Your task to perform on an android device: toggle javascript in the chrome app Image 0: 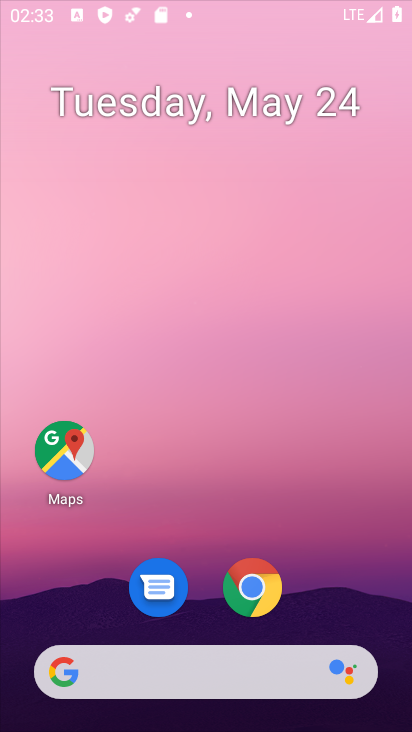
Step 0: drag from (208, 699) to (219, 86)
Your task to perform on an android device: toggle javascript in the chrome app Image 1: 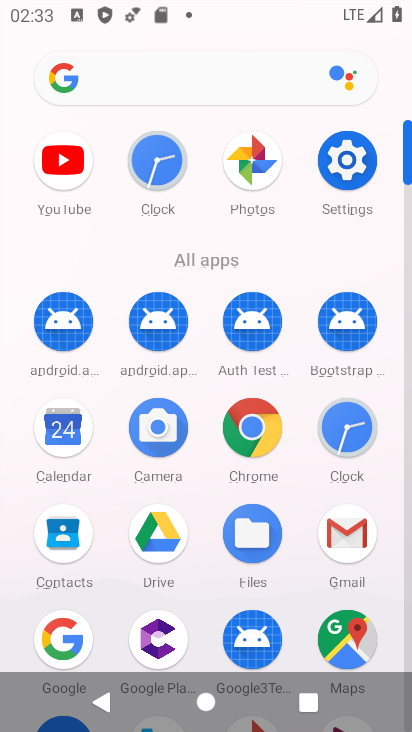
Step 1: click (252, 444)
Your task to perform on an android device: toggle javascript in the chrome app Image 2: 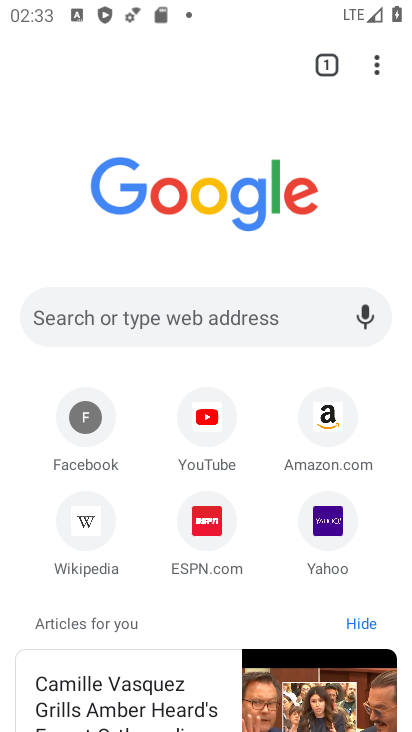
Step 2: click (377, 65)
Your task to perform on an android device: toggle javascript in the chrome app Image 3: 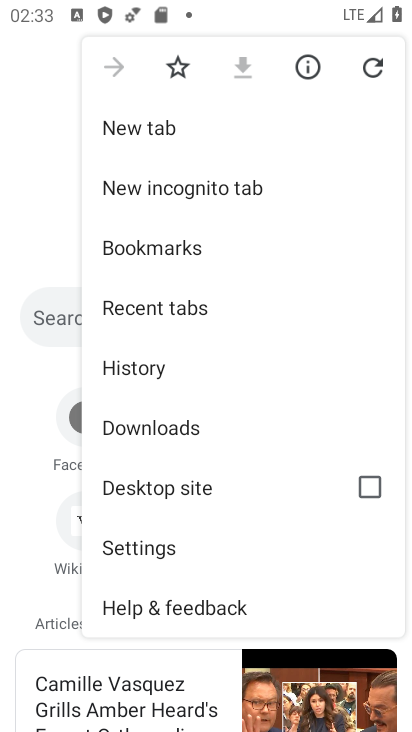
Step 3: click (155, 548)
Your task to perform on an android device: toggle javascript in the chrome app Image 4: 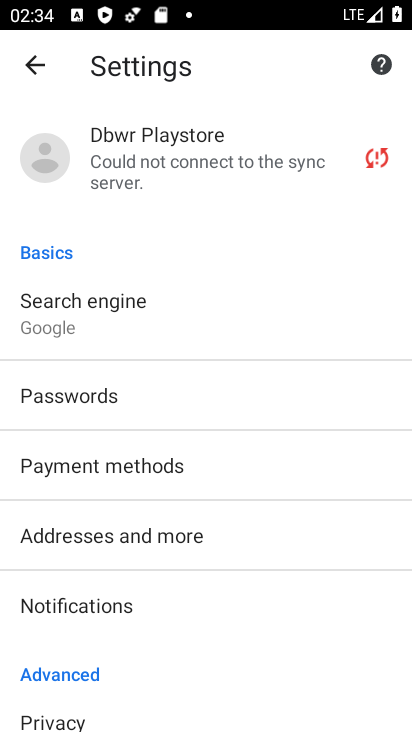
Step 4: drag from (281, 658) to (286, 221)
Your task to perform on an android device: toggle javascript in the chrome app Image 5: 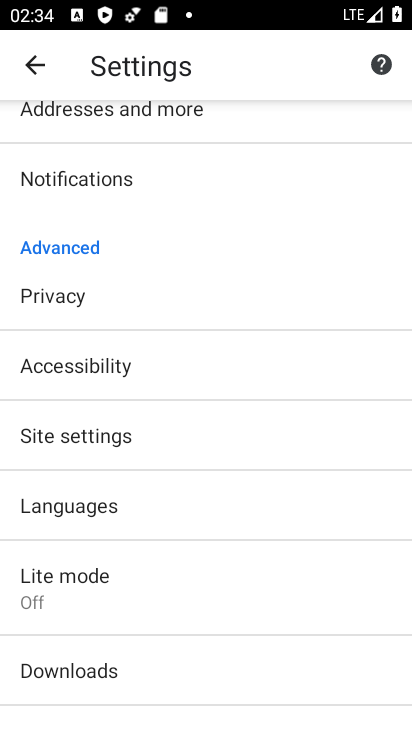
Step 5: click (85, 449)
Your task to perform on an android device: toggle javascript in the chrome app Image 6: 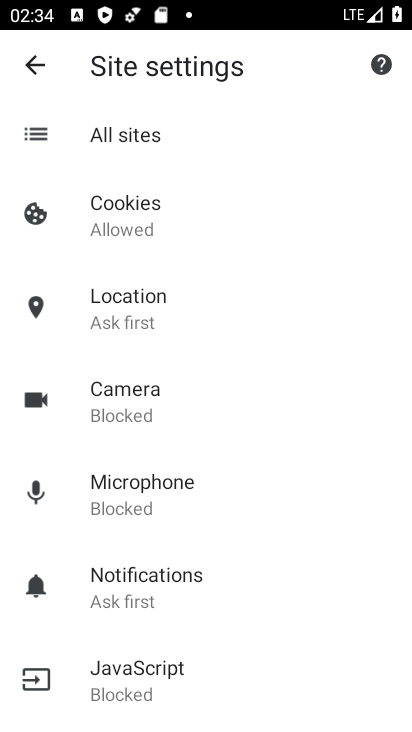
Step 6: click (161, 673)
Your task to perform on an android device: toggle javascript in the chrome app Image 7: 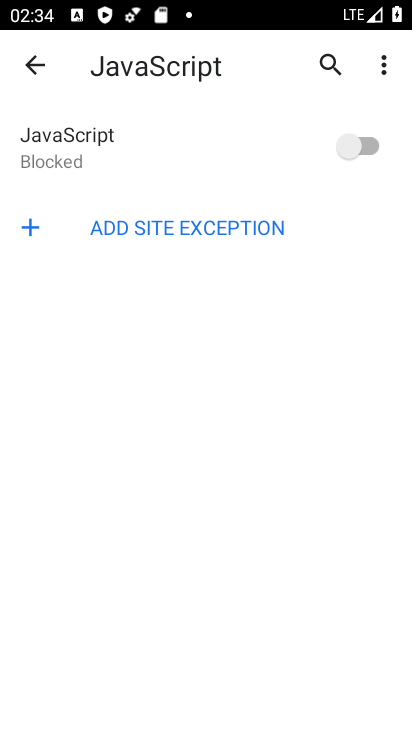
Step 7: click (354, 147)
Your task to perform on an android device: toggle javascript in the chrome app Image 8: 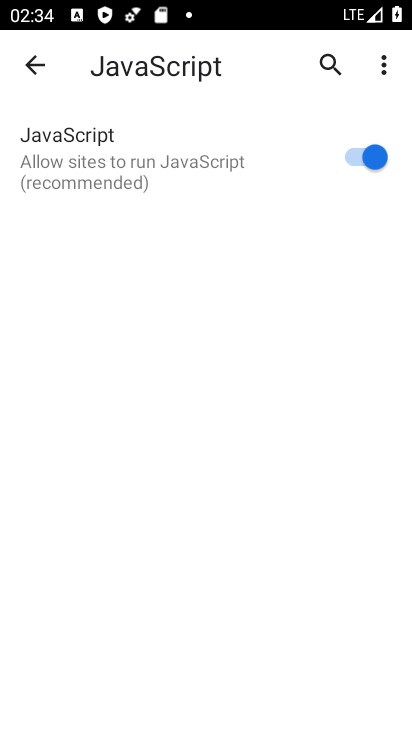
Step 8: task complete